Your task to perform on an android device: Turn on the flashlight Image 0: 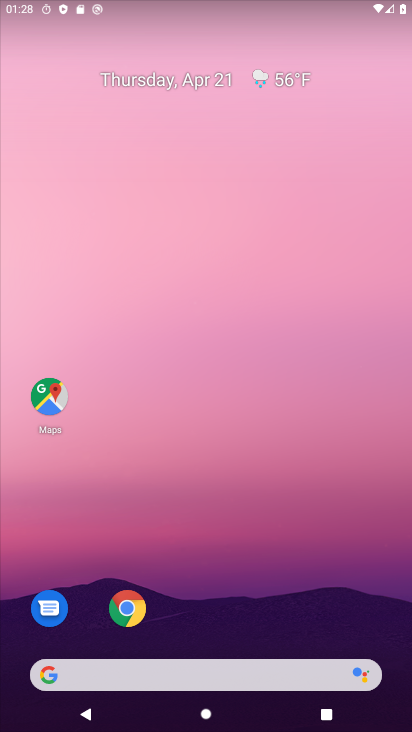
Step 0: drag from (274, 371) to (236, 89)
Your task to perform on an android device: Turn on the flashlight Image 1: 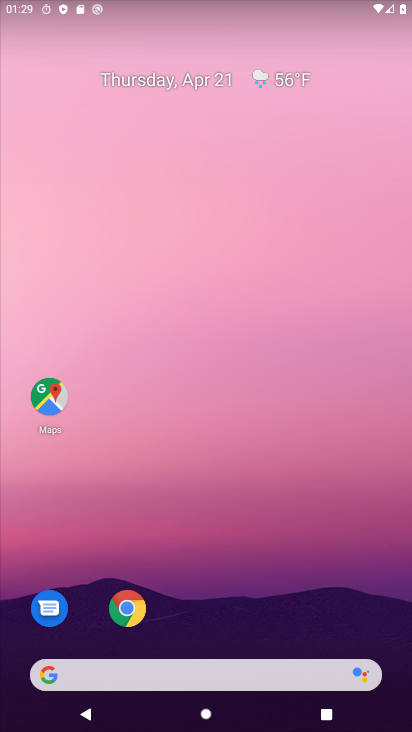
Step 1: drag from (241, 598) to (173, 128)
Your task to perform on an android device: Turn on the flashlight Image 2: 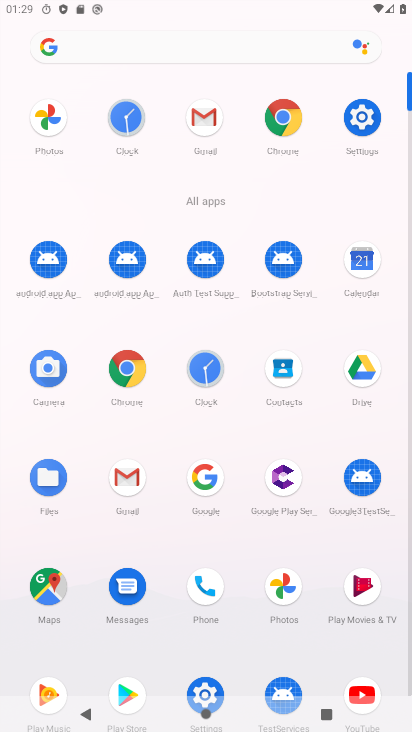
Step 2: click (361, 127)
Your task to perform on an android device: Turn on the flashlight Image 3: 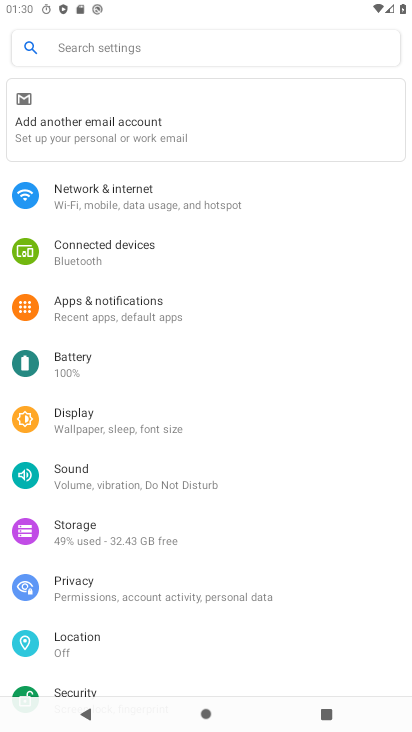
Step 3: click (83, 315)
Your task to perform on an android device: Turn on the flashlight Image 4: 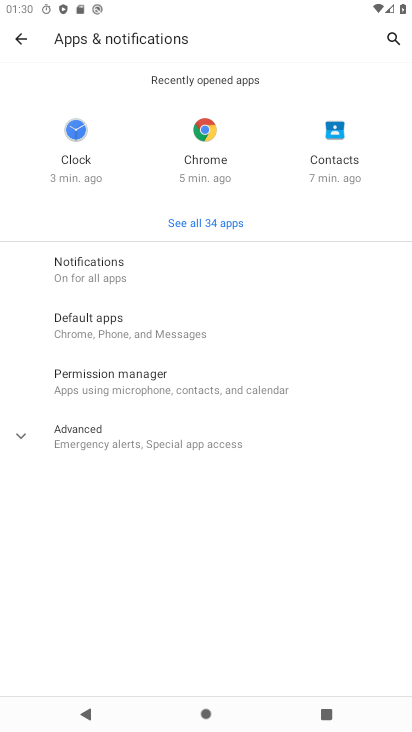
Step 4: click (192, 224)
Your task to perform on an android device: Turn on the flashlight Image 5: 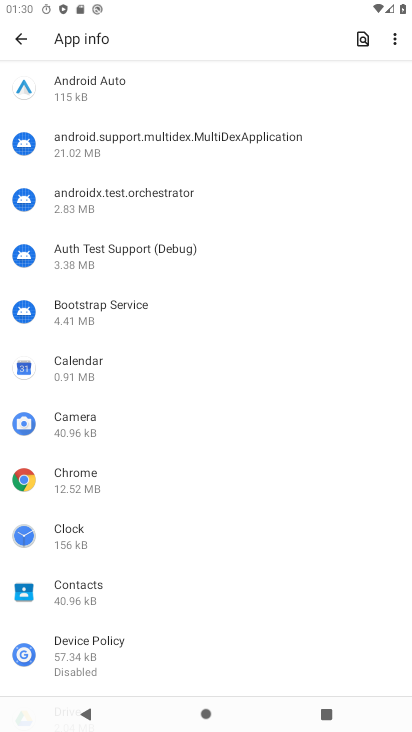
Step 5: task complete